Your task to perform on an android device: open app "VLC for Android" (install if not already installed) and enter user name: "Yves@outlook.com" and password: "internally" Image 0: 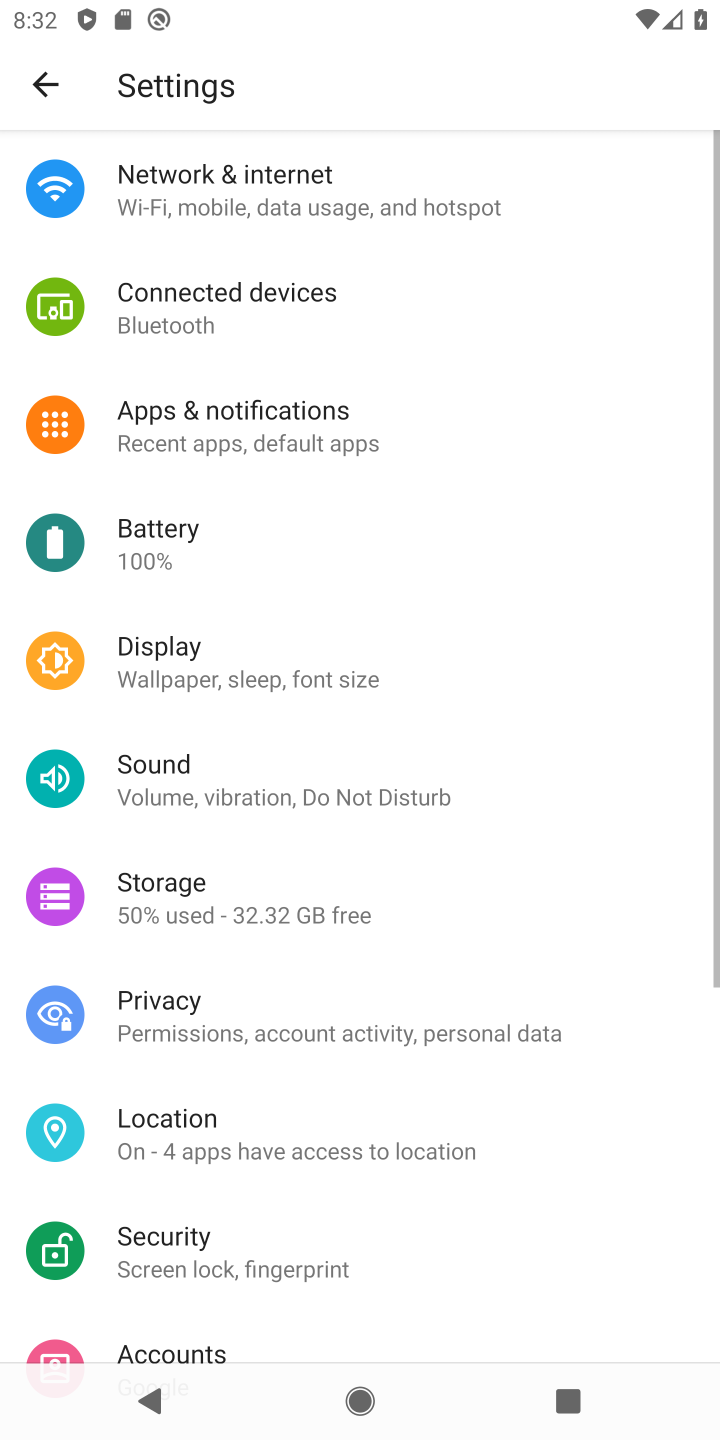
Step 0: press home button
Your task to perform on an android device: open app "VLC for Android" (install if not already installed) and enter user name: "Yves@outlook.com" and password: "internally" Image 1: 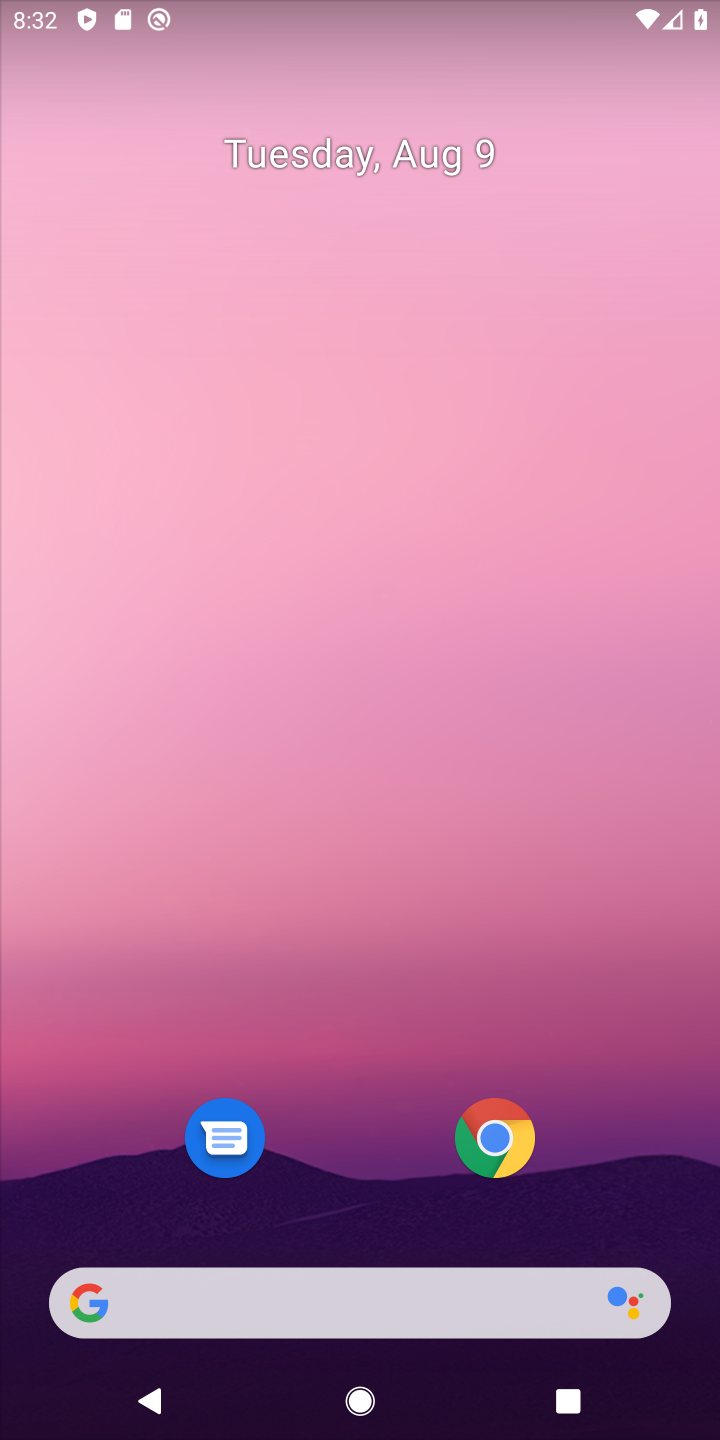
Step 1: drag from (302, 1139) to (398, 376)
Your task to perform on an android device: open app "VLC for Android" (install if not already installed) and enter user name: "Yves@outlook.com" and password: "internally" Image 2: 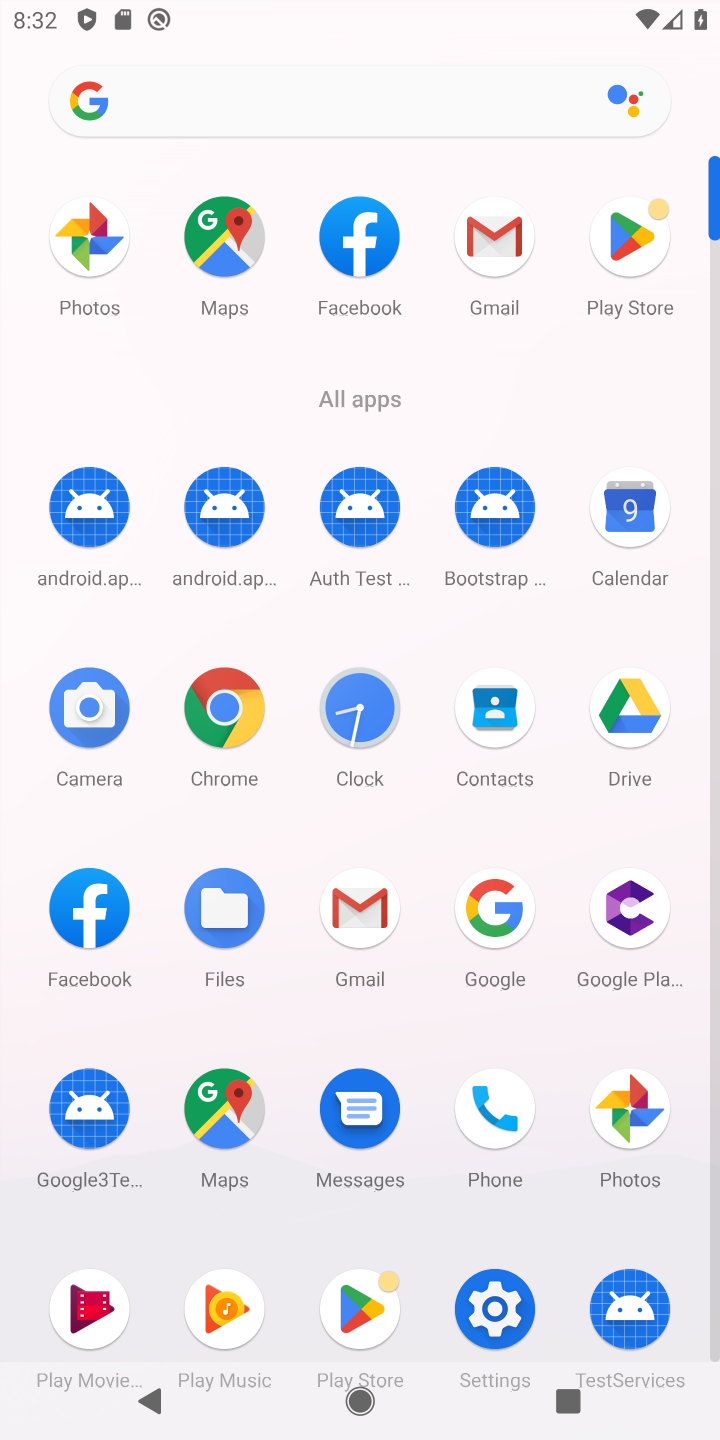
Step 2: click (634, 249)
Your task to perform on an android device: open app "VLC for Android" (install if not already installed) and enter user name: "Yves@outlook.com" and password: "internally" Image 3: 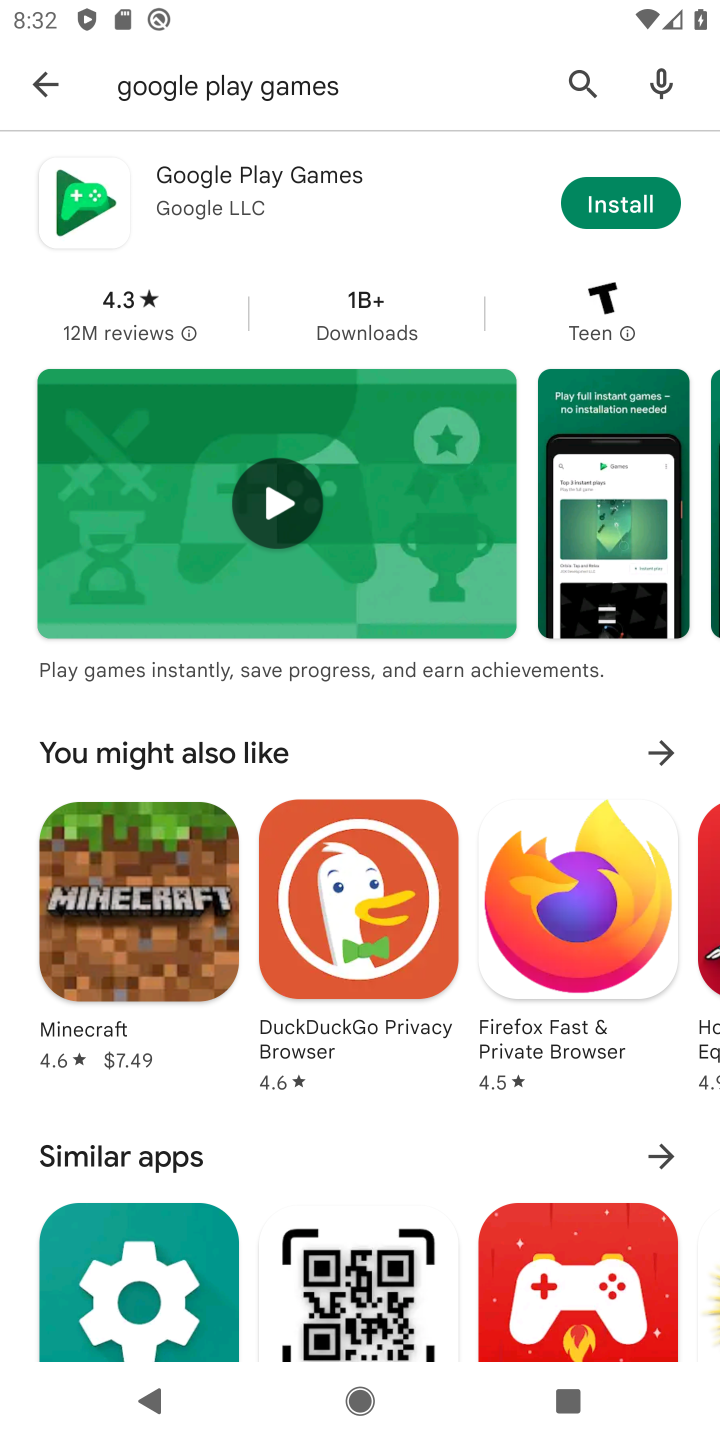
Step 3: click (575, 86)
Your task to perform on an android device: open app "VLC for Android" (install if not already installed) and enter user name: "Yves@outlook.com" and password: "internally" Image 4: 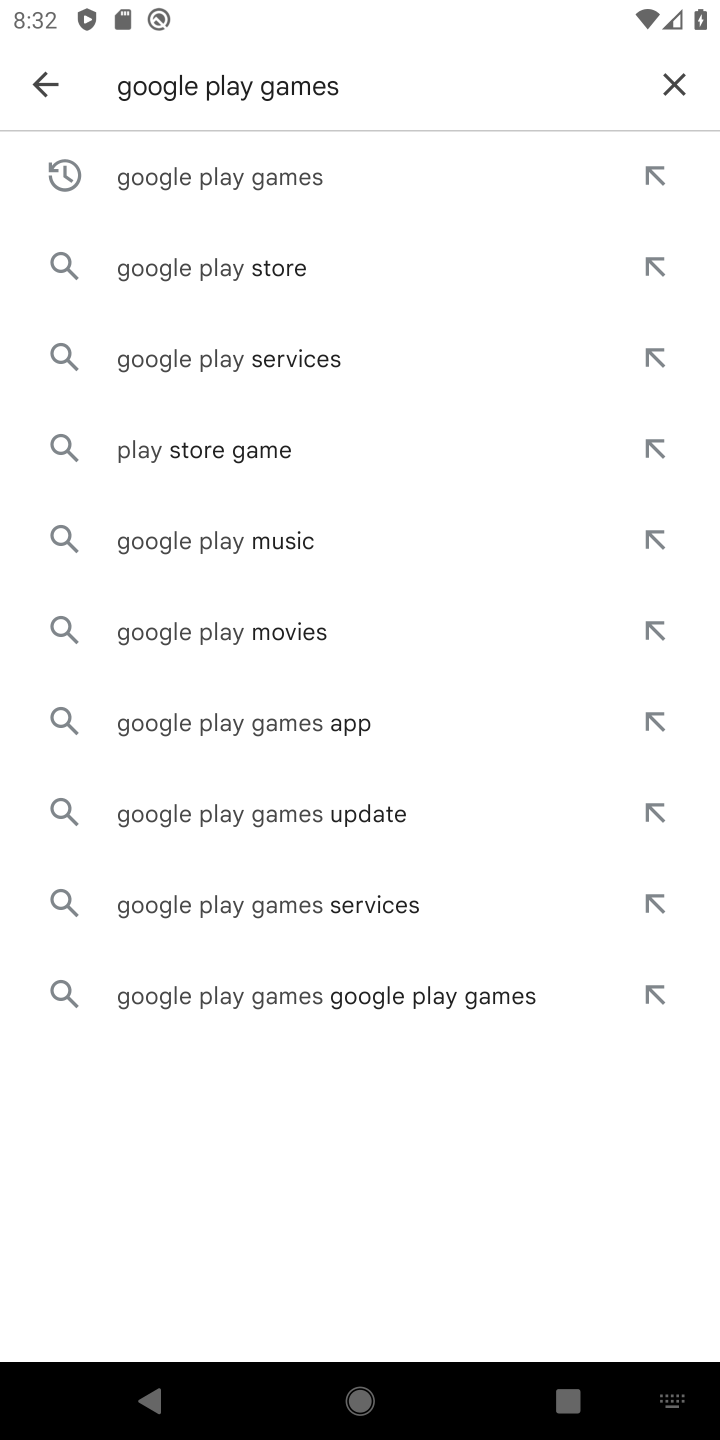
Step 4: click (661, 77)
Your task to perform on an android device: open app "VLC for Android" (install if not already installed) and enter user name: "Yves@outlook.com" and password: "internally" Image 5: 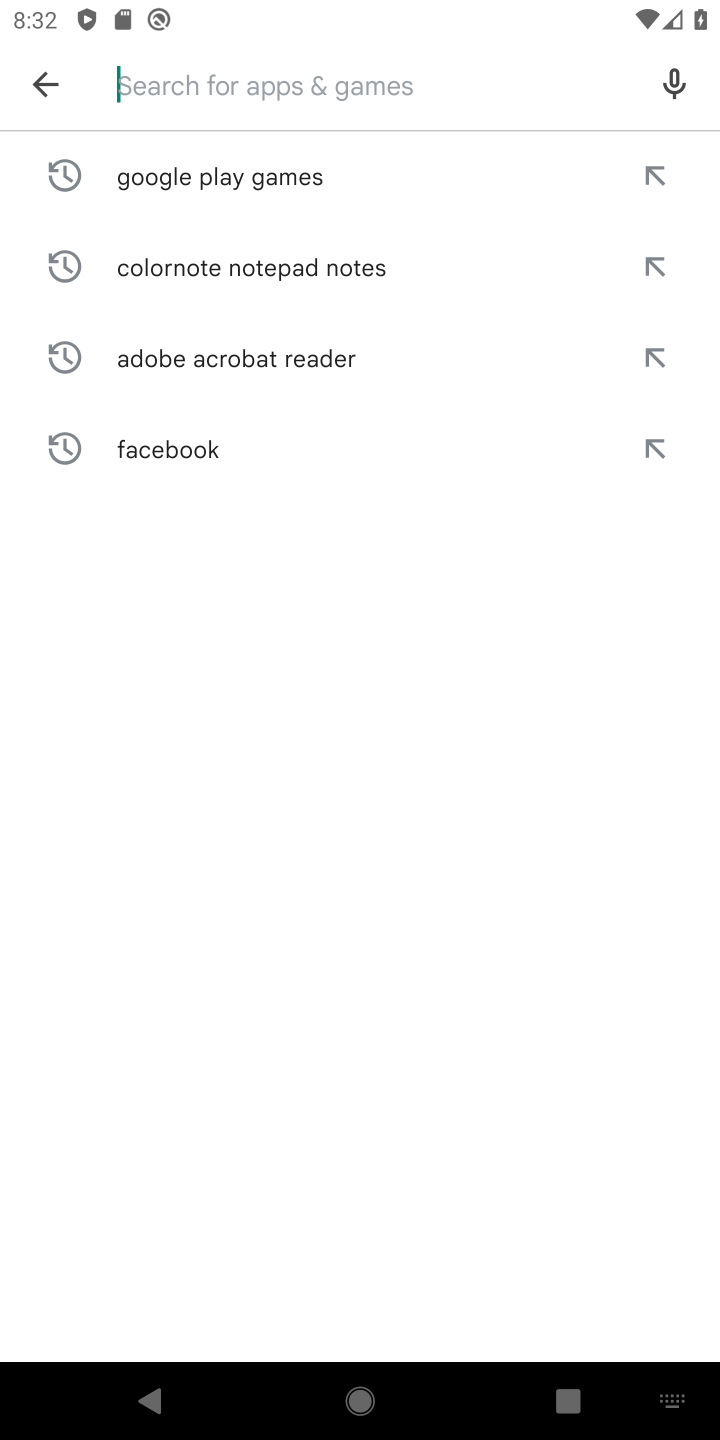
Step 5: type "VLC for Android"
Your task to perform on an android device: open app "VLC for Android" (install if not already installed) and enter user name: "Yves@outlook.com" and password: "internally" Image 6: 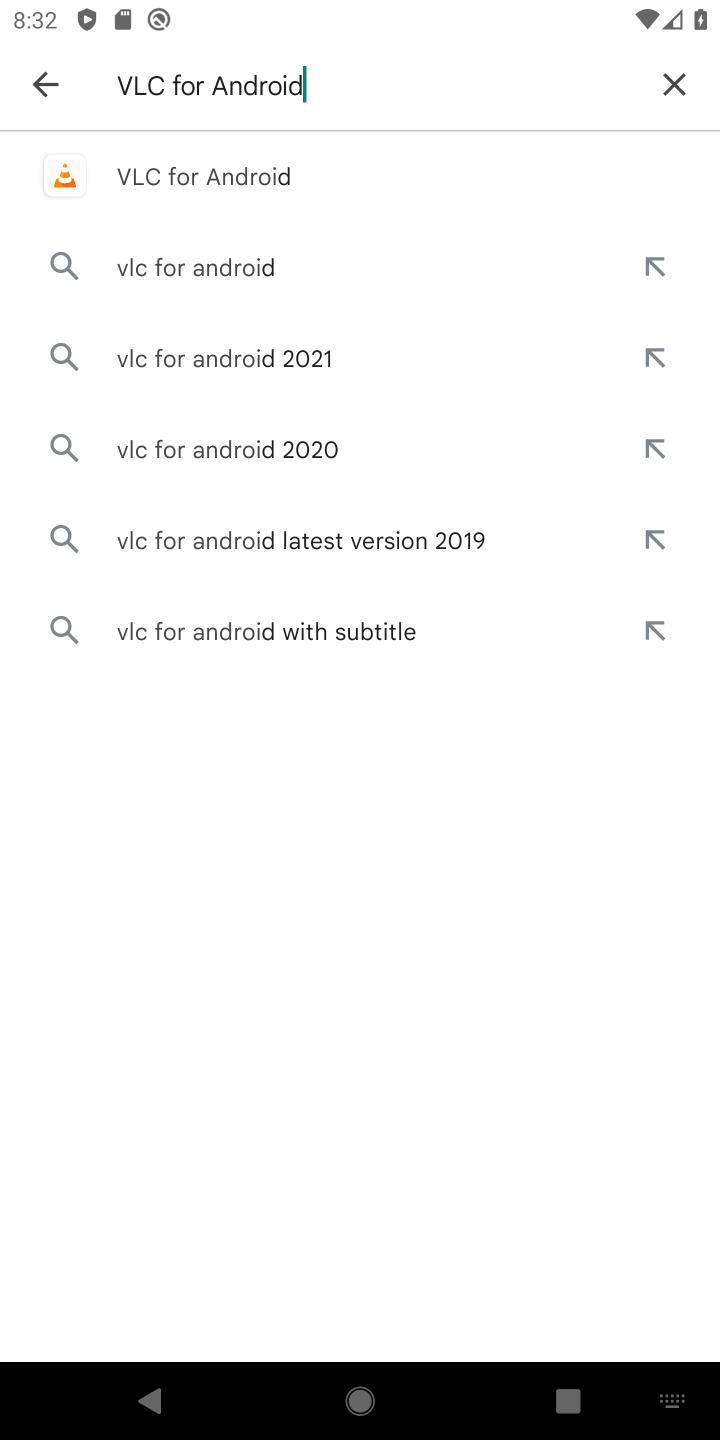
Step 6: type ""
Your task to perform on an android device: open app "VLC for Android" (install if not already installed) and enter user name: "Yves@outlook.com" and password: "internally" Image 7: 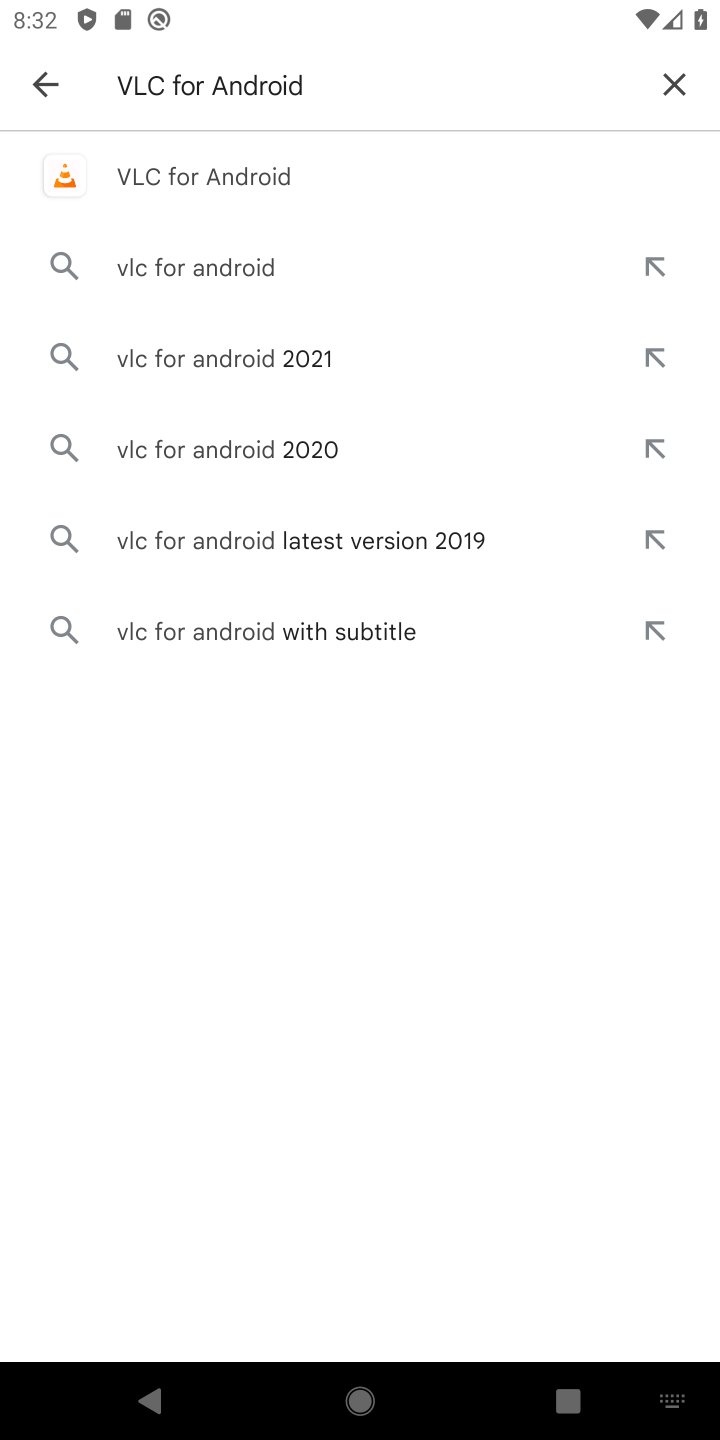
Step 7: click (199, 174)
Your task to perform on an android device: open app "VLC for Android" (install if not already installed) and enter user name: "Yves@outlook.com" and password: "internally" Image 8: 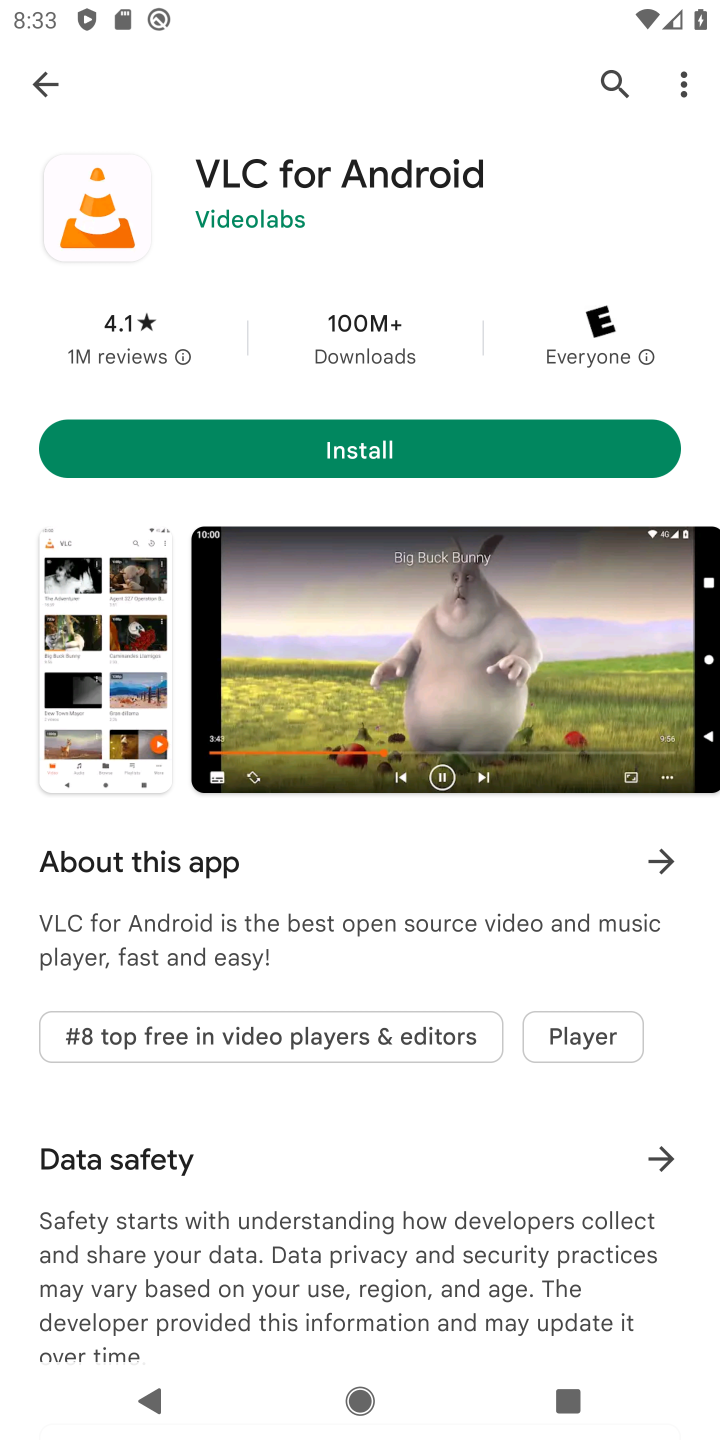
Step 8: click (421, 445)
Your task to perform on an android device: open app "VLC for Android" (install if not already installed) and enter user name: "Yves@outlook.com" and password: "internally" Image 9: 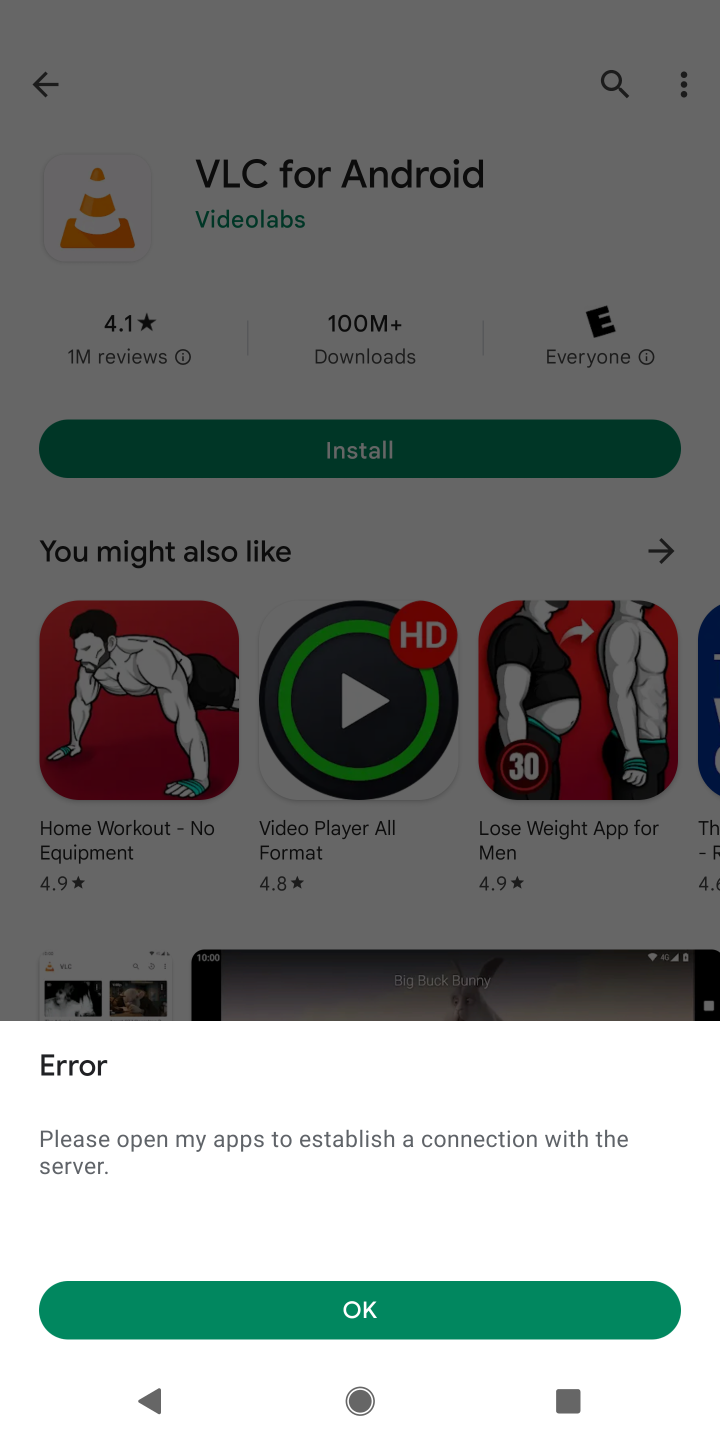
Step 9: click (411, 1290)
Your task to perform on an android device: open app "VLC for Android" (install if not already installed) and enter user name: "Yves@outlook.com" and password: "internally" Image 10: 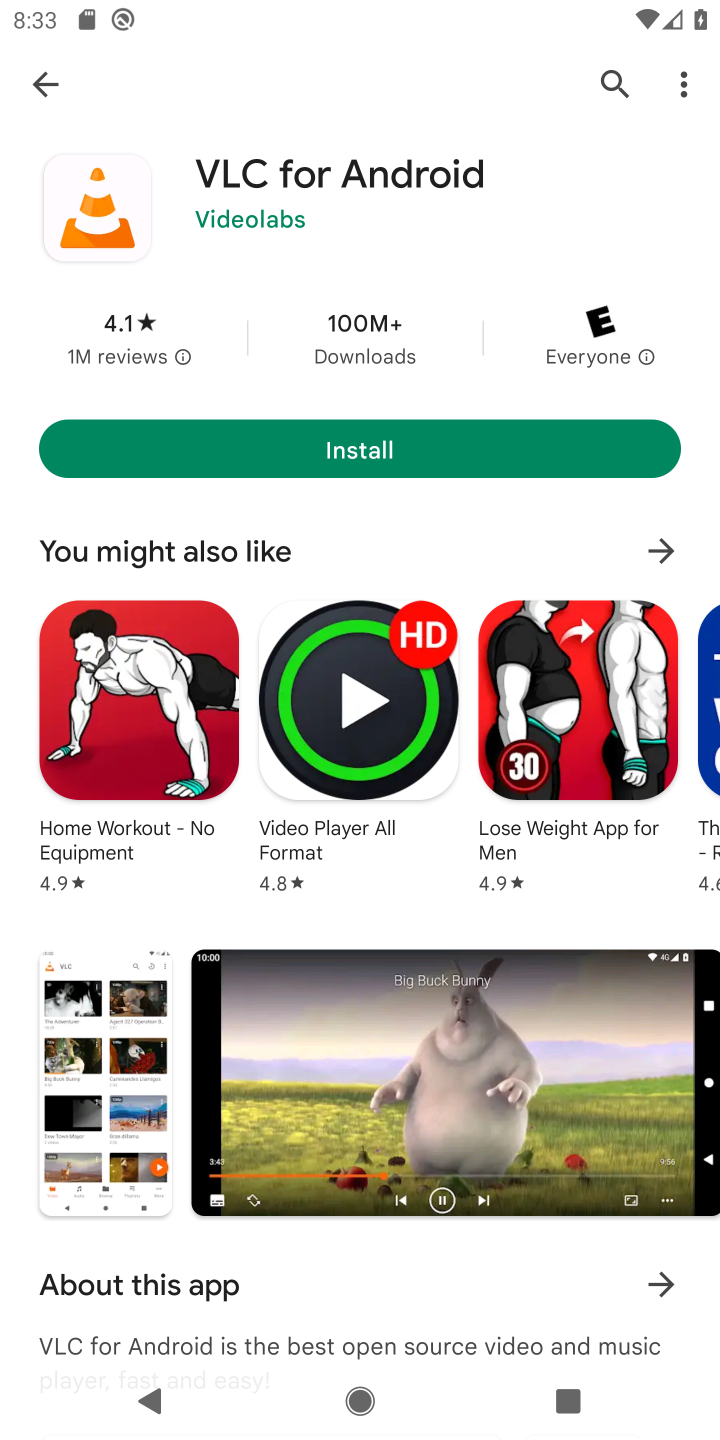
Step 10: click (325, 437)
Your task to perform on an android device: open app "VLC for Android" (install if not already installed) and enter user name: "Yves@outlook.com" and password: "internally" Image 11: 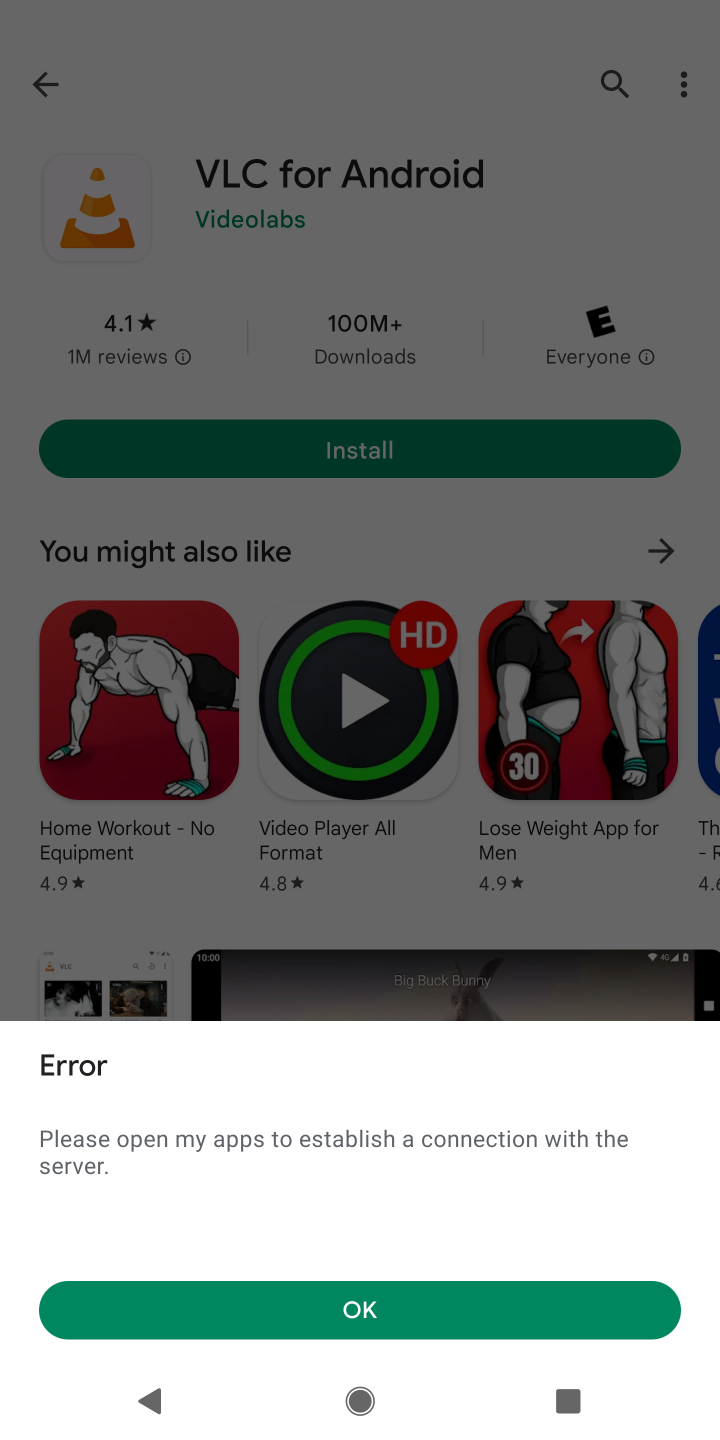
Step 11: task complete